Your task to perform on an android device: allow cookies in the chrome app Image 0: 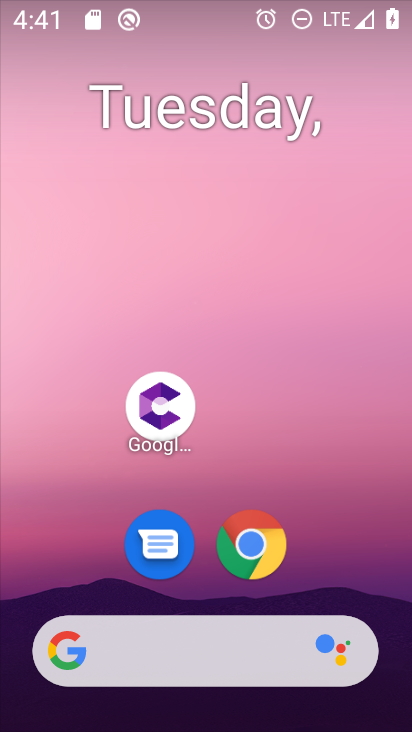
Step 0: drag from (378, 580) to (363, 247)
Your task to perform on an android device: allow cookies in the chrome app Image 1: 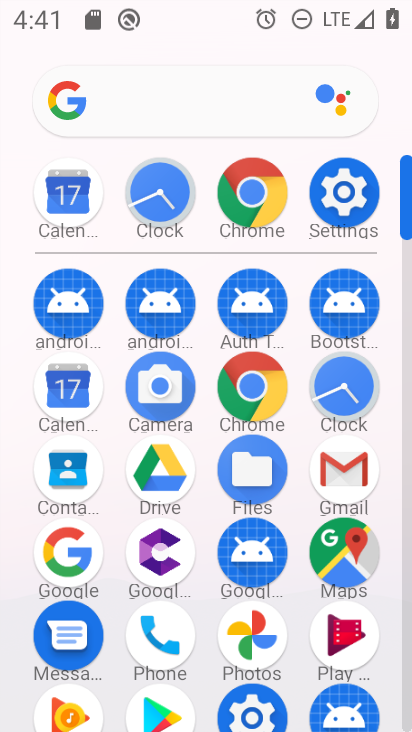
Step 1: click (254, 410)
Your task to perform on an android device: allow cookies in the chrome app Image 2: 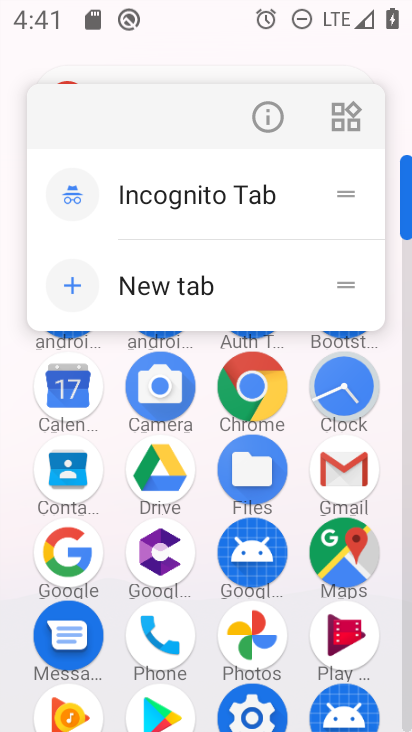
Step 2: click (254, 410)
Your task to perform on an android device: allow cookies in the chrome app Image 3: 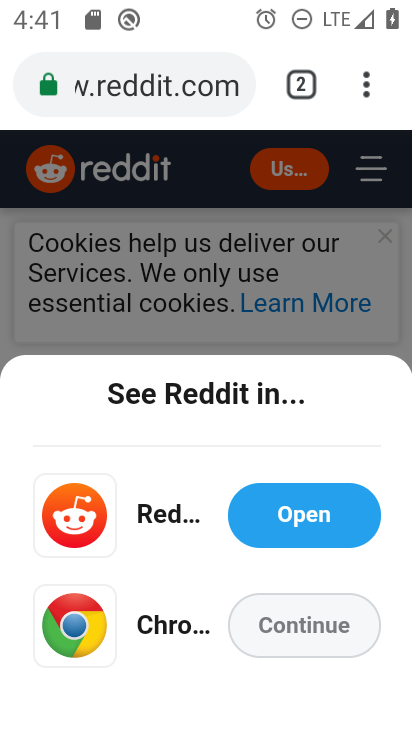
Step 3: press back button
Your task to perform on an android device: allow cookies in the chrome app Image 4: 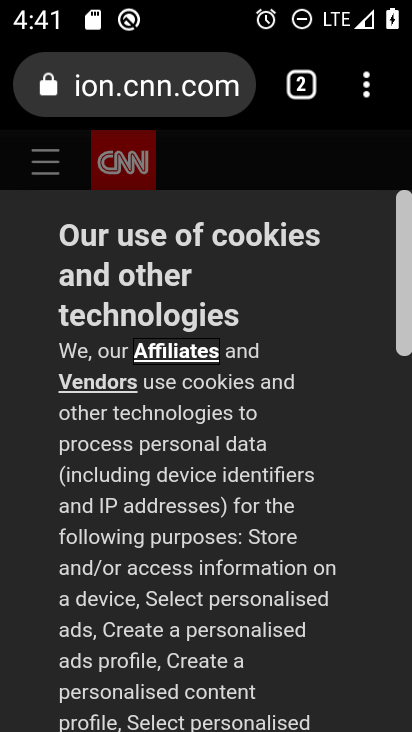
Step 4: click (366, 91)
Your task to perform on an android device: allow cookies in the chrome app Image 5: 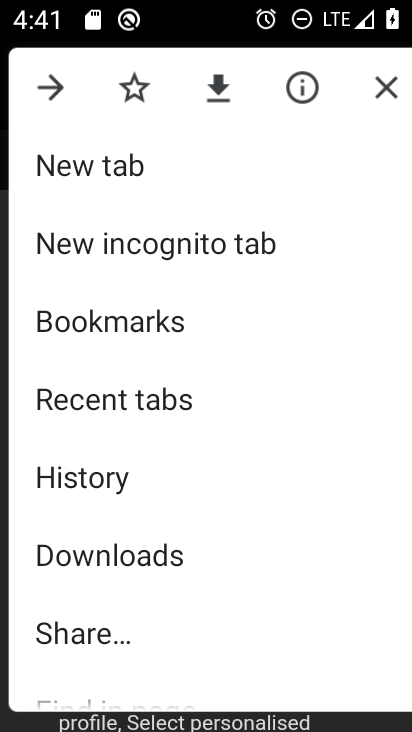
Step 5: drag from (321, 480) to (318, 397)
Your task to perform on an android device: allow cookies in the chrome app Image 6: 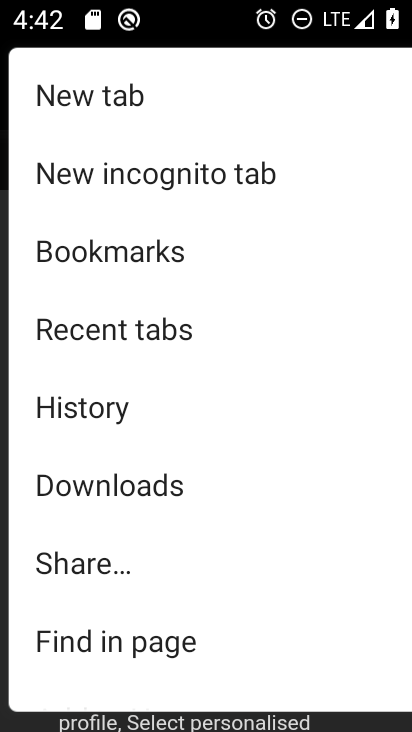
Step 6: drag from (318, 548) to (330, 440)
Your task to perform on an android device: allow cookies in the chrome app Image 7: 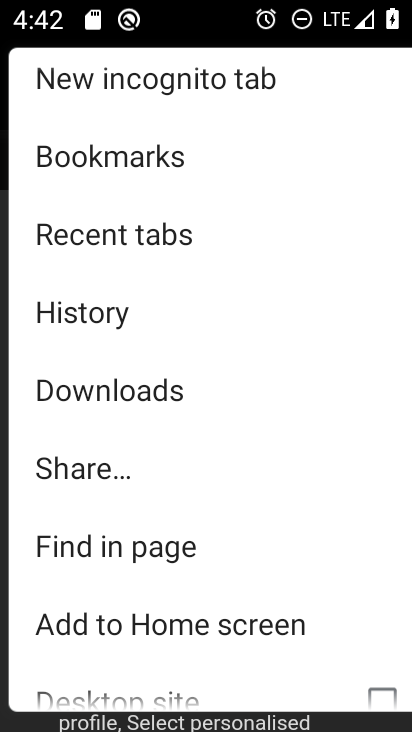
Step 7: drag from (303, 545) to (311, 458)
Your task to perform on an android device: allow cookies in the chrome app Image 8: 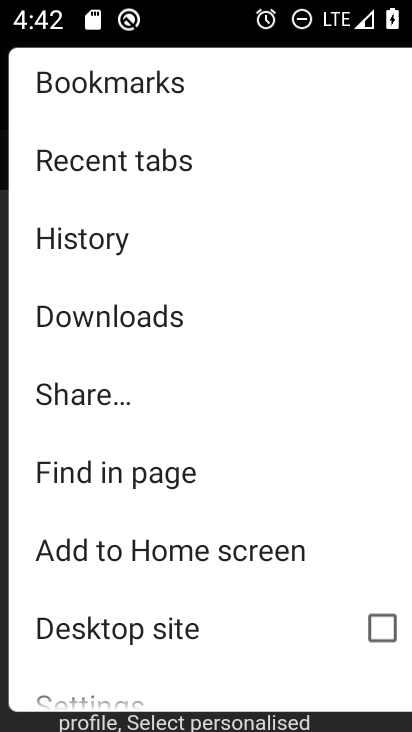
Step 8: drag from (305, 603) to (312, 469)
Your task to perform on an android device: allow cookies in the chrome app Image 9: 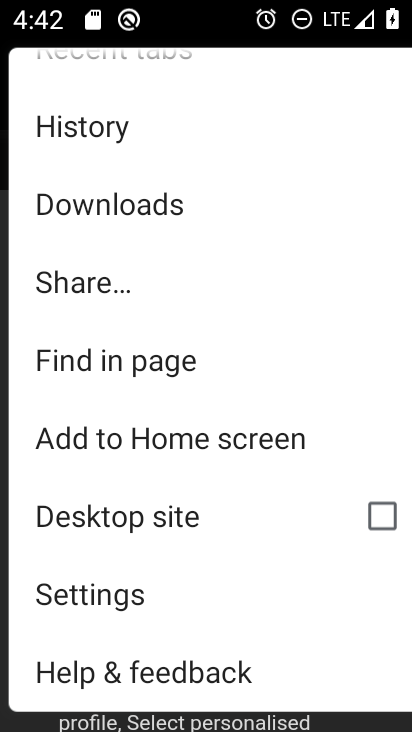
Step 9: click (150, 598)
Your task to perform on an android device: allow cookies in the chrome app Image 10: 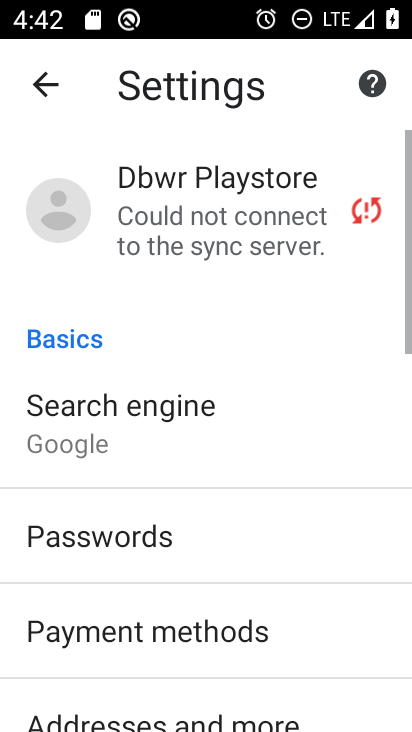
Step 10: drag from (282, 592) to (290, 501)
Your task to perform on an android device: allow cookies in the chrome app Image 11: 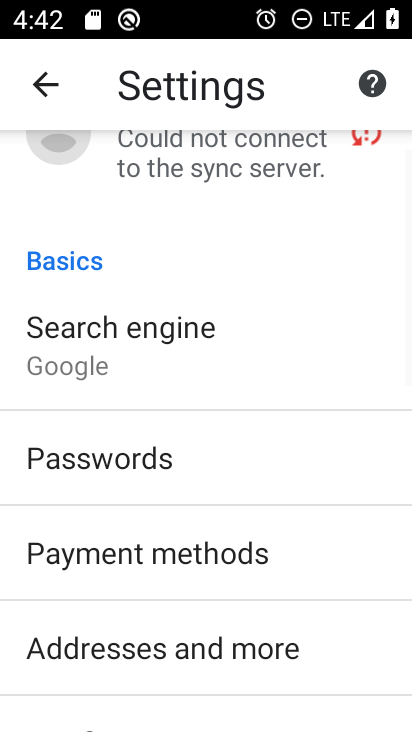
Step 11: drag from (297, 608) to (304, 505)
Your task to perform on an android device: allow cookies in the chrome app Image 12: 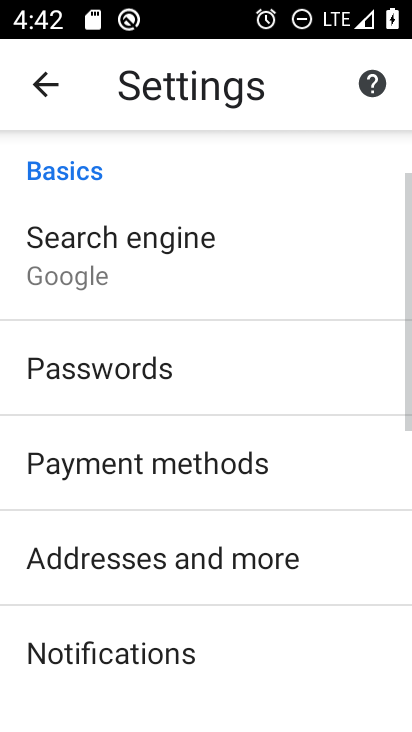
Step 12: drag from (310, 637) to (323, 529)
Your task to perform on an android device: allow cookies in the chrome app Image 13: 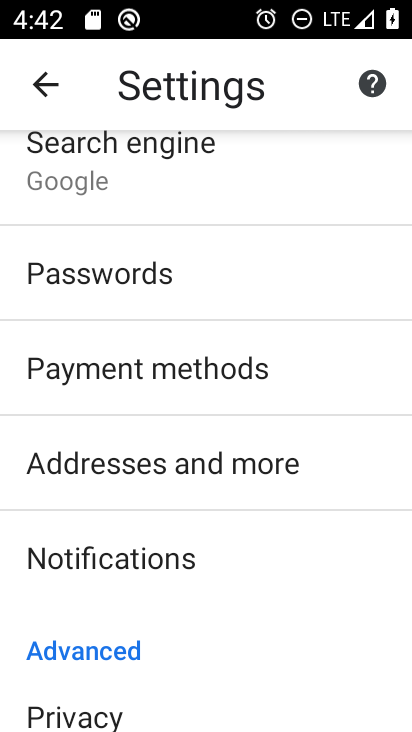
Step 13: drag from (301, 634) to (309, 544)
Your task to perform on an android device: allow cookies in the chrome app Image 14: 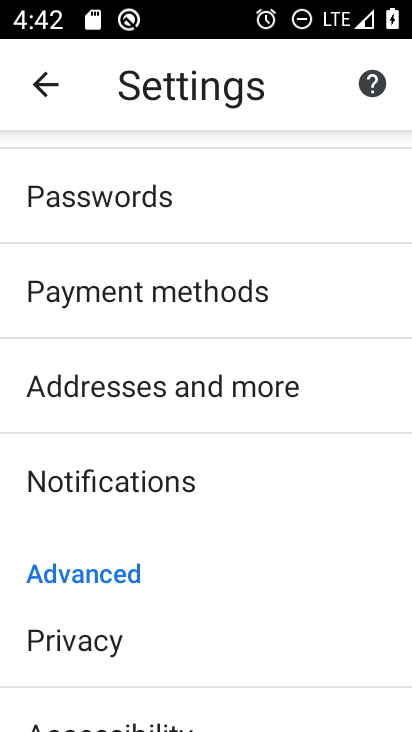
Step 14: drag from (294, 648) to (294, 538)
Your task to perform on an android device: allow cookies in the chrome app Image 15: 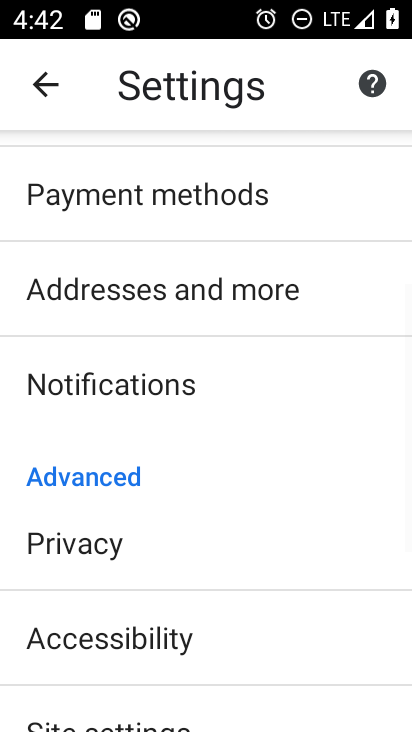
Step 15: drag from (295, 643) to (298, 569)
Your task to perform on an android device: allow cookies in the chrome app Image 16: 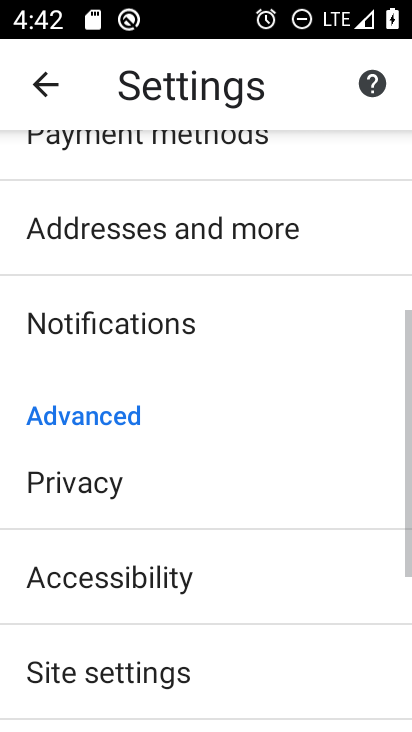
Step 16: drag from (298, 658) to (287, 559)
Your task to perform on an android device: allow cookies in the chrome app Image 17: 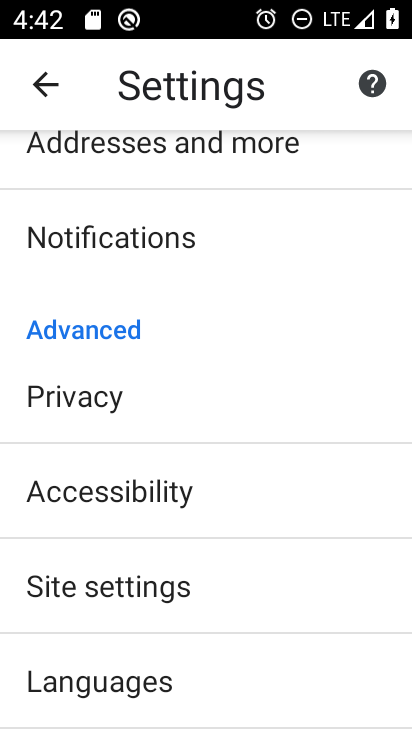
Step 17: drag from (281, 664) to (276, 566)
Your task to perform on an android device: allow cookies in the chrome app Image 18: 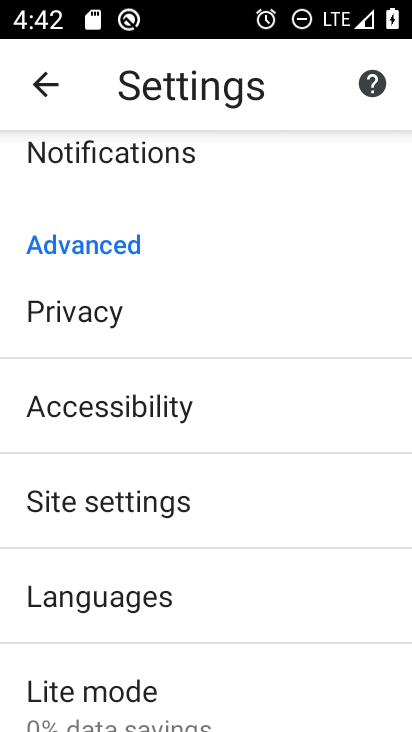
Step 18: drag from (272, 674) to (272, 593)
Your task to perform on an android device: allow cookies in the chrome app Image 19: 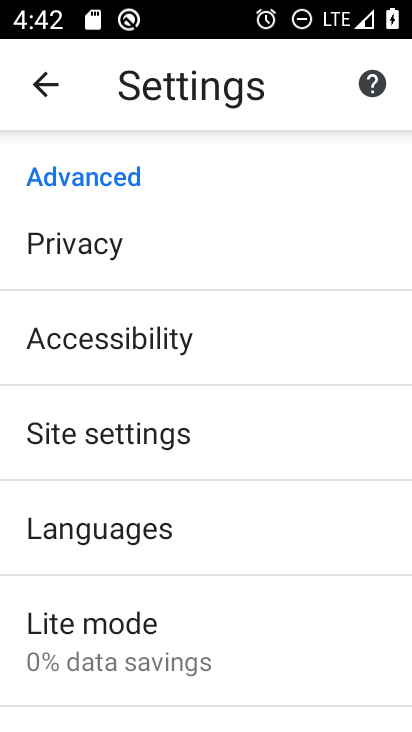
Step 19: click (216, 456)
Your task to perform on an android device: allow cookies in the chrome app Image 20: 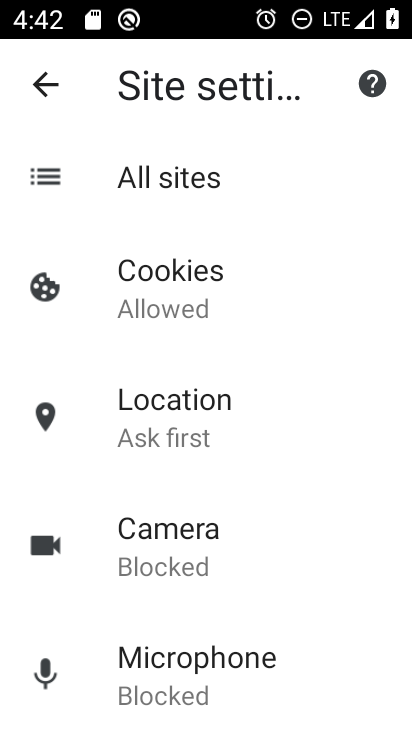
Step 20: click (208, 288)
Your task to perform on an android device: allow cookies in the chrome app Image 21: 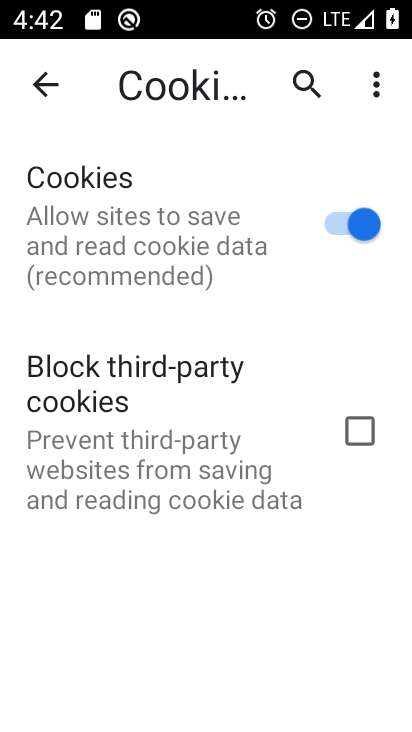
Step 21: task complete